Your task to perform on an android device: allow cookies in the chrome app Image 0: 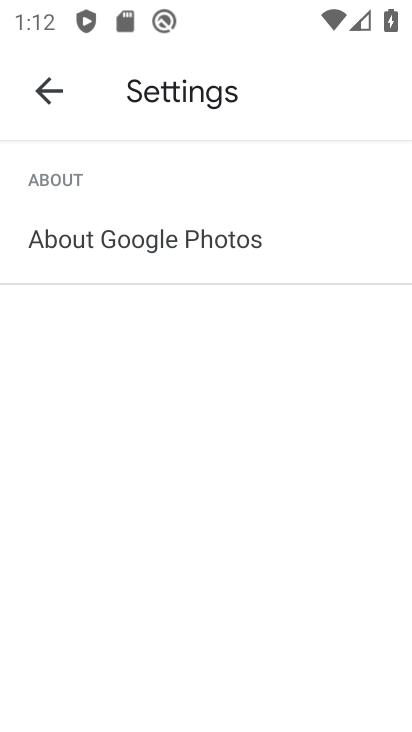
Step 0: press home button
Your task to perform on an android device: allow cookies in the chrome app Image 1: 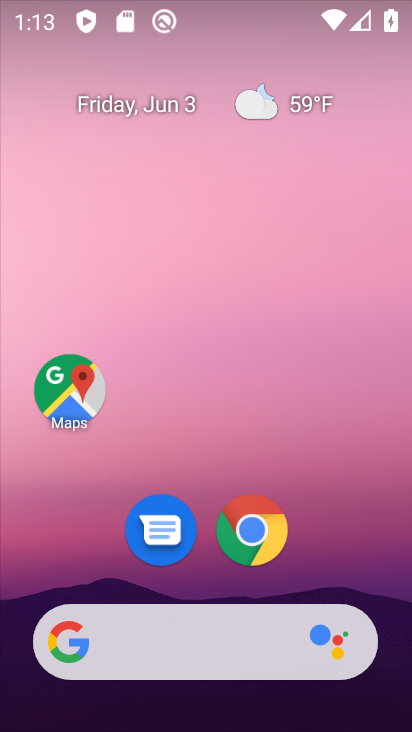
Step 1: click (251, 525)
Your task to perform on an android device: allow cookies in the chrome app Image 2: 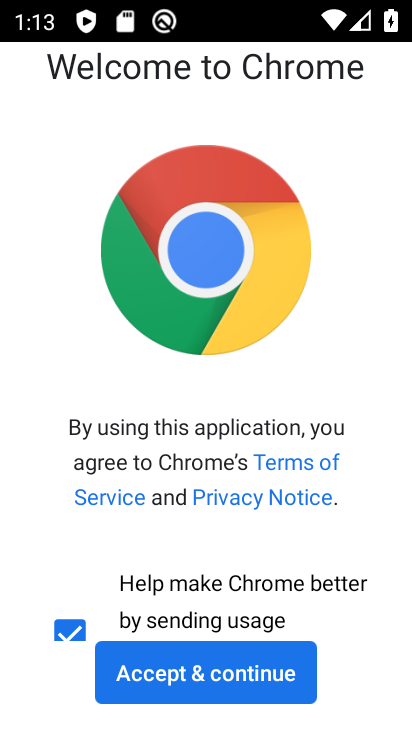
Step 2: click (224, 670)
Your task to perform on an android device: allow cookies in the chrome app Image 3: 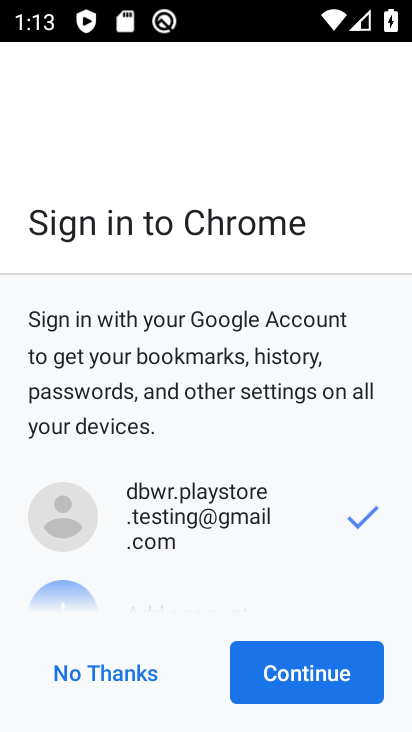
Step 3: click (241, 676)
Your task to perform on an android device: allow cookies in the chrome app Image 4: 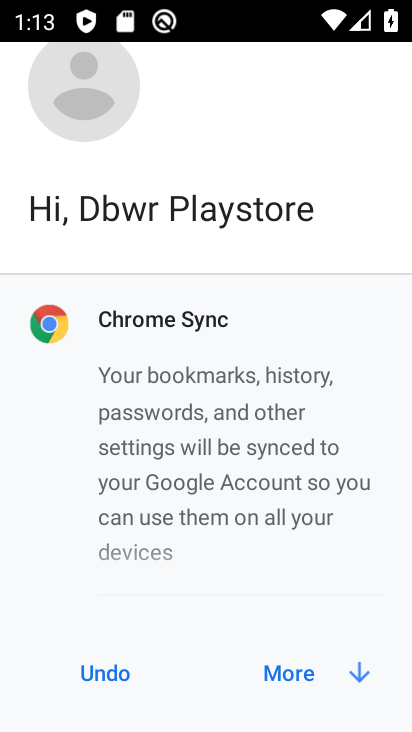
Step 4: click (264, 668)
Your task to perform on an android device: allow cookies in the chrome app Image 5: 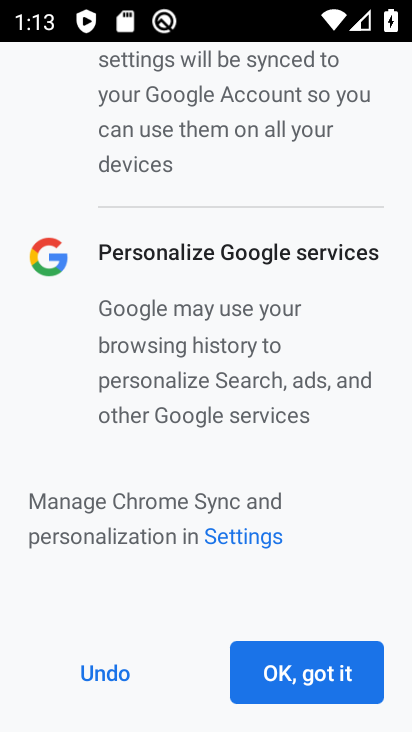
Step 5: click (309, 664)
Your task to perform on an android device: allow cookies in the chrome app Image 6: 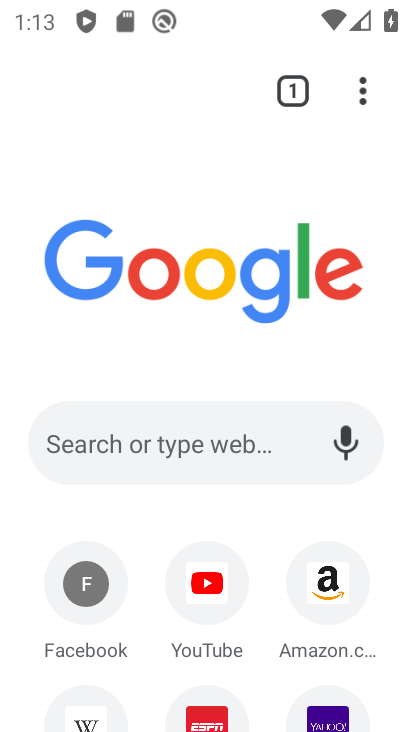
Step 6: click (356, 87)
Your task to perform on an android device: allow cookies in the chrome app Image 7: 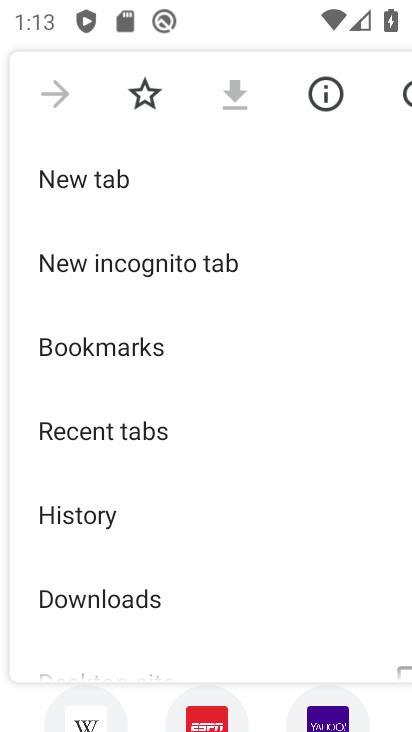
Step 7: drag from (138, 594) to (131, 171)
Your task to perform on an android device: allow cookies in the chrome app Image 8: 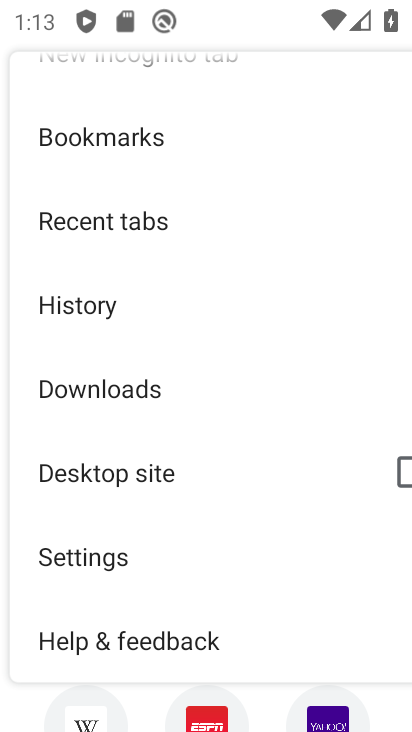
Step 8: click (73, 559)
Your task to perform on an android device: allow cookies in the chrome app Image 9: 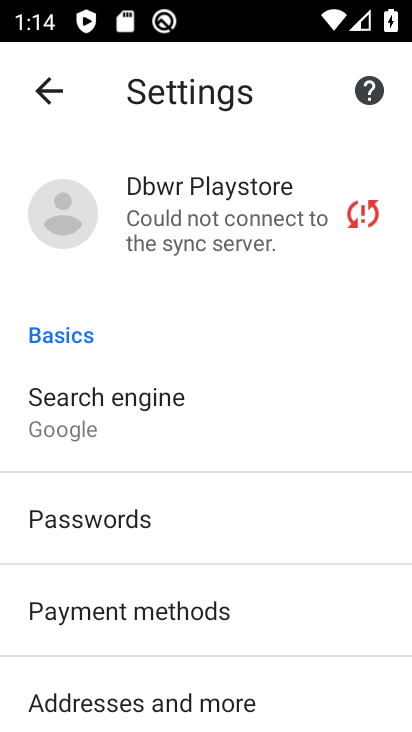
Step 9: drag from (156, 670) to (210, 212)
Your task to perform on an android device: allow cookies in the chrome app Image 10: 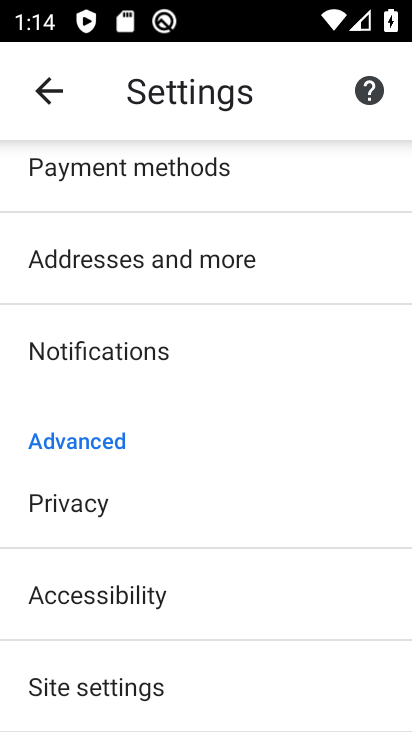
Step 10: click (149, 668)
Your task to perform on an android device: allow cookies in the chrome app Image 11: 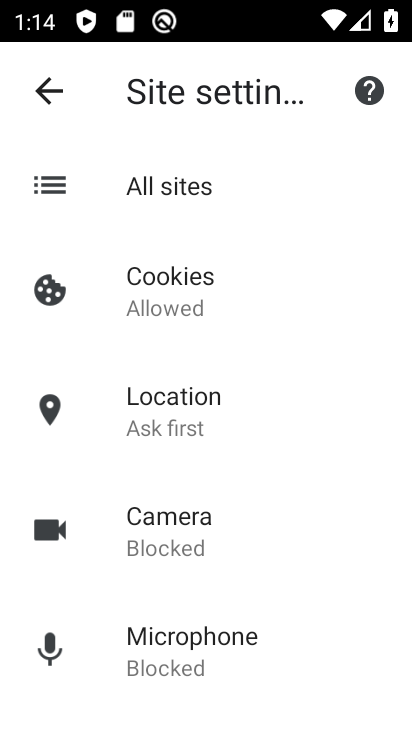
Step 11: click (132, 313)
Your task to perform on an android device: allow cookies in the chrome app Image 12: 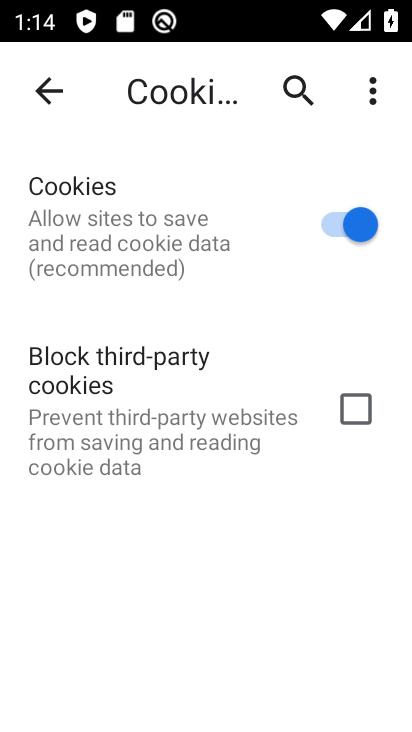
Step 12: task complete